Your task to perform on an android device: turn on javascript in the chrome app Image 0: 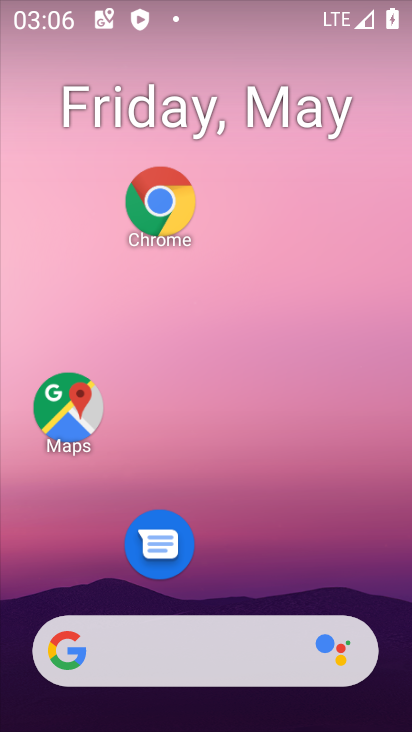
Step 0: drag from (283, 573) to (317, 196)
Your task to perform on an android device: turn on javascript in the chrome app Image 1: 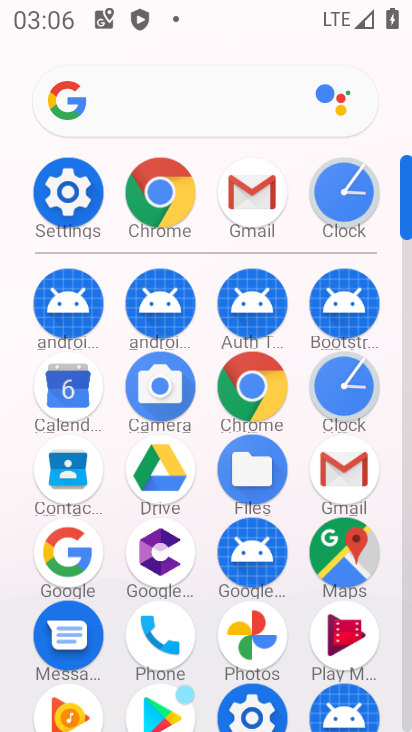
Step 1: click (273, 393)
Your task to perform on an android device: turn on javascript in the chrome app Image 2: 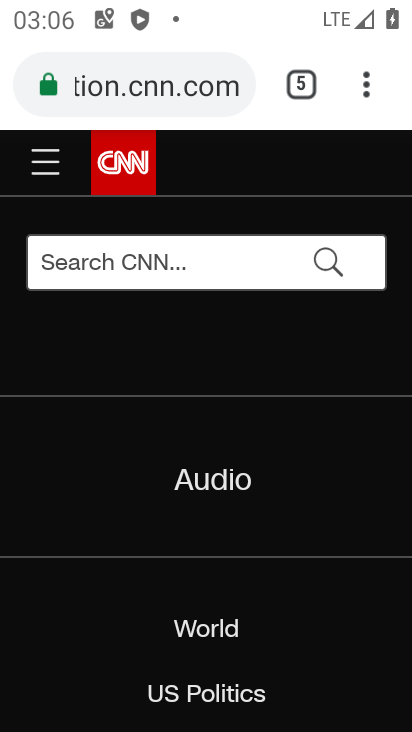
Step 2: click (361, 95)
Your task to perform on an android device: turn on javascript in the chrome app Image 3: 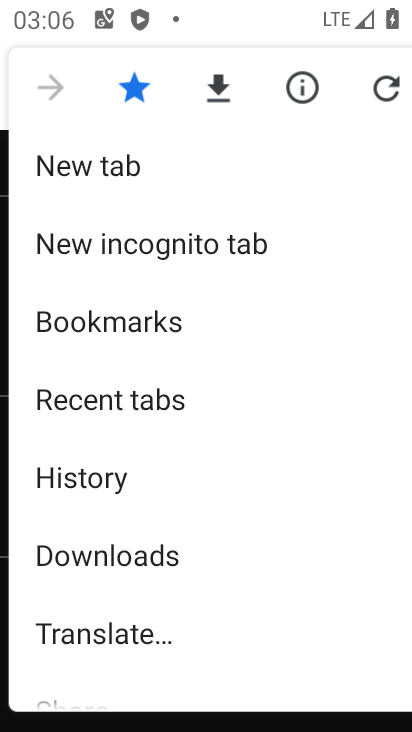
Step 3: drag from (238, 444) to (259, 231)
Your task to perform on an android device: turn on javascript in the chrome app Image 4: 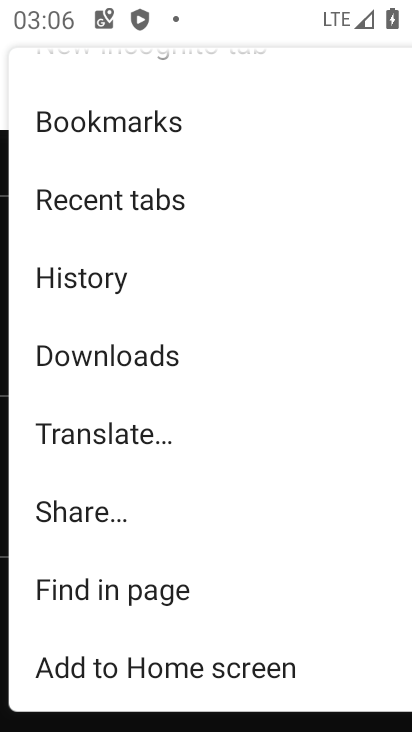
Step 4: drag from (173, 523) to (276, 233)
Your task to perform on an android device: turn on javascript in the chrome app Image 5: 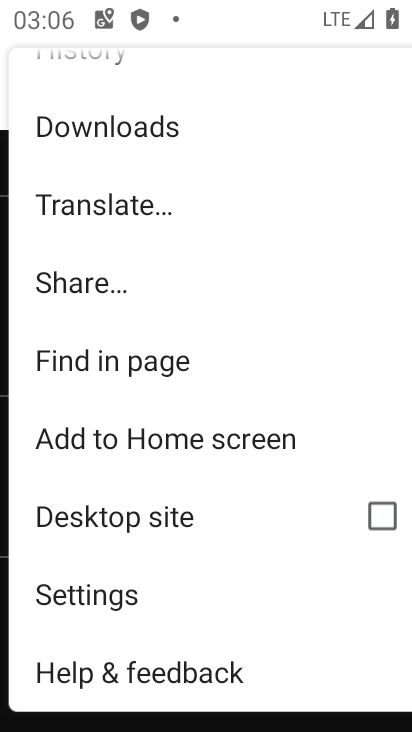
Step 5: click (153, 599)
Your task to perform on an android device: turn on javascript in the chrome app Image 6: 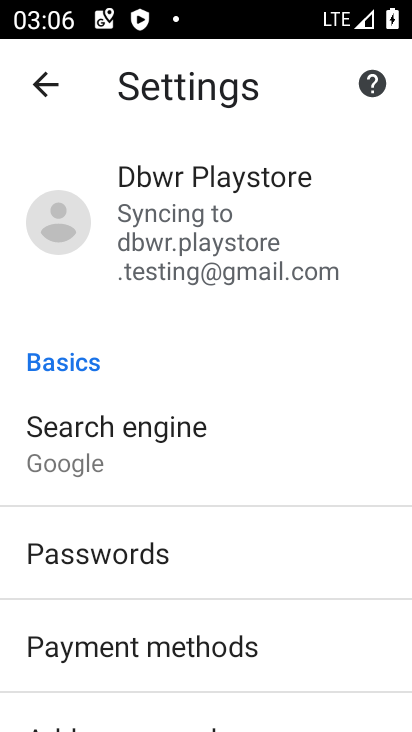
Step 6: drag from (226, 608) to (282, 264)
Your task to perform on an android device: turn on javascript in the chrome app Image 7: 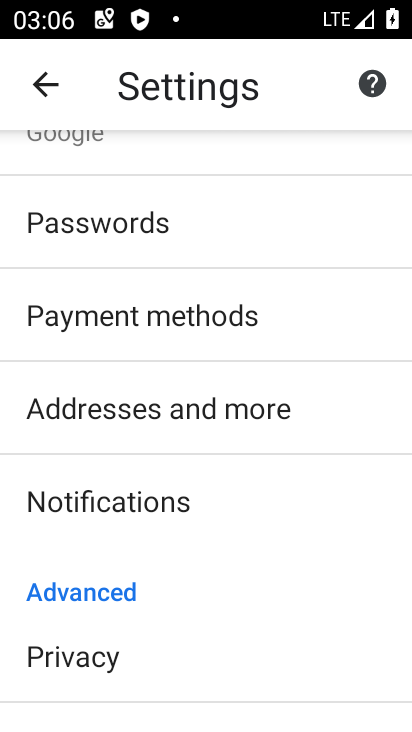
Step 7: drag from (235, 585) to (247, 319)
Your task to perform on an android device: turn on javascript in the chrome app Image 8: 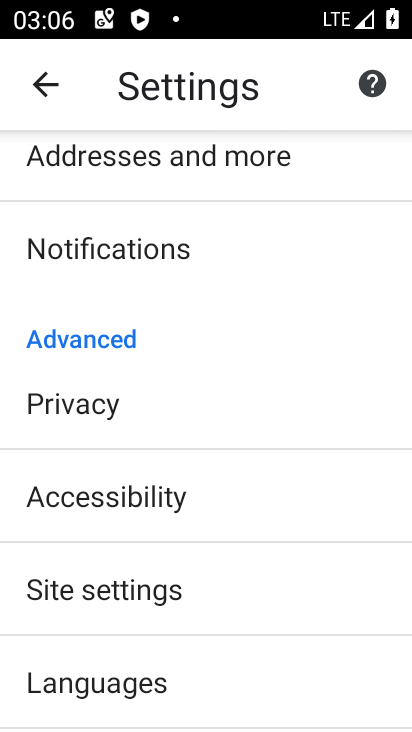
Step 8: drag from (237, 559) to (249, 387)
Your task to perform on an android device: turn on javascript in the chrome app Image 9: 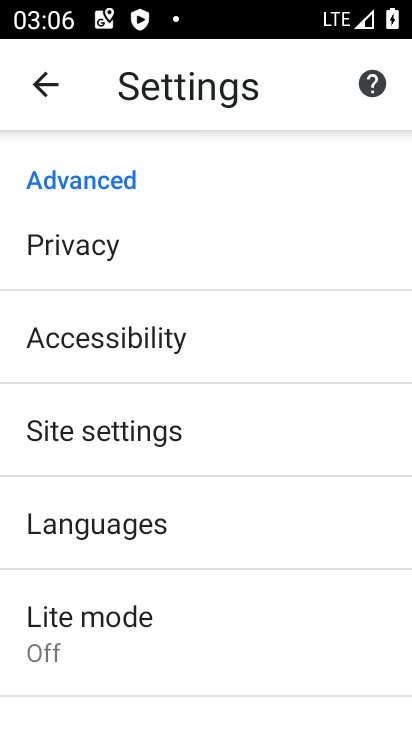
Step 9: drag from (207, 518) to (205, 458)
Your task to perform on an android device: turn on javascript in the chrome app Image 10: 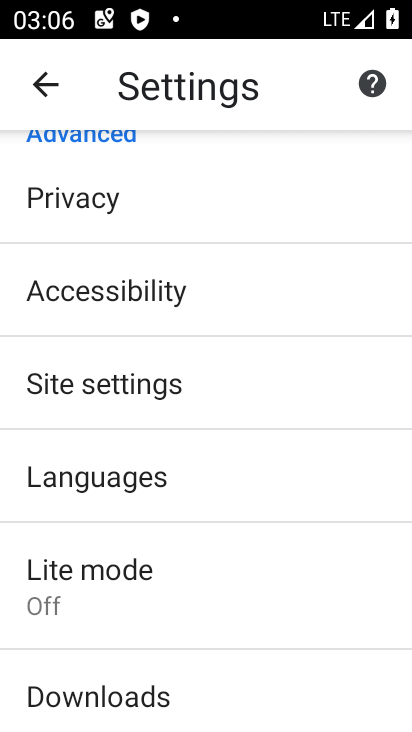
Step 10: click (196, 399)
Your task to perform on an android device: turn on javascript in the chrome app Image 11: 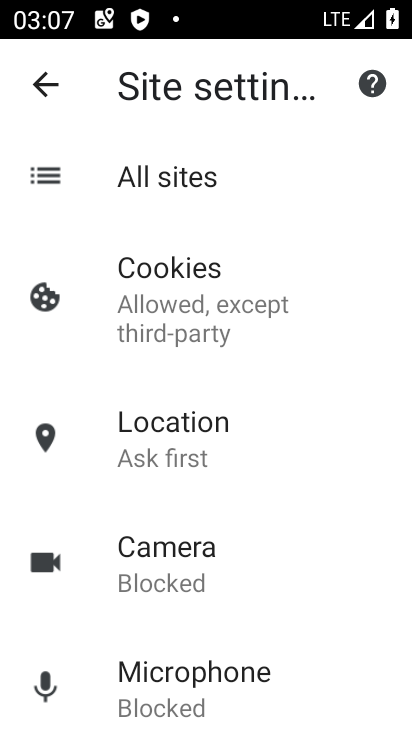
Step 11: drag from (271, 528) to (276, 280)
Your task to perform on an android device: turn on javascript in the chrome app Image 12: 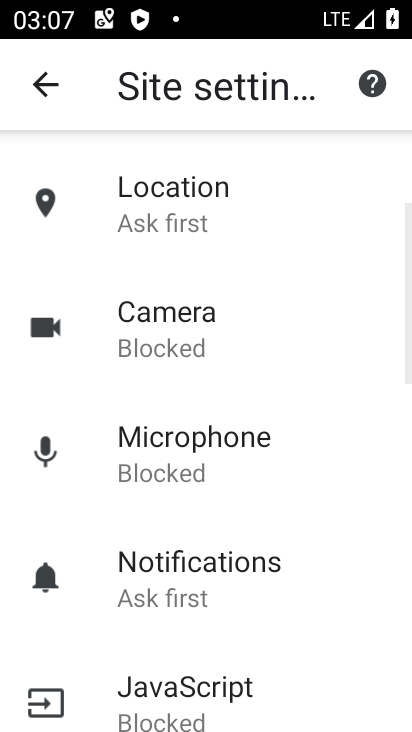
Step 12: drag from (256, 494) to (259, 277)
Your task to perform on an android device: turn on javascript in the chrome app Image 13: 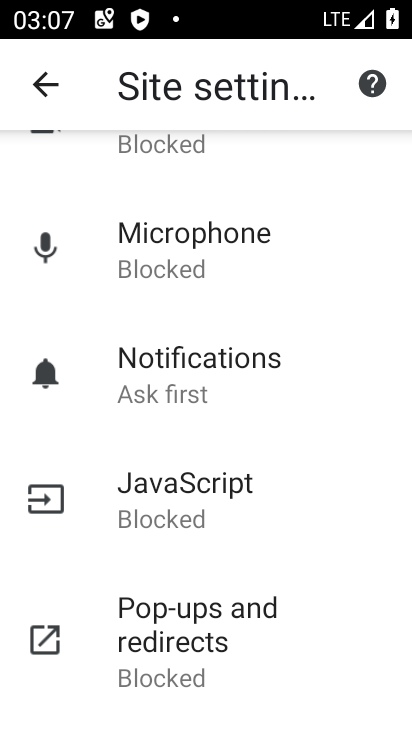
Step 13: click (220, 498)
Your task to perform on an android device: turn on javascript in the chrome app Image 14: 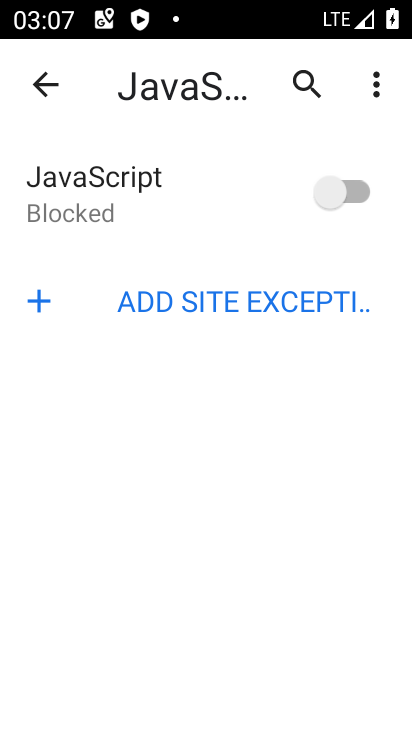
Step 14: click (333, 203)
Your task to perform on an android device: turn on javascript in the chrome app Image 15: 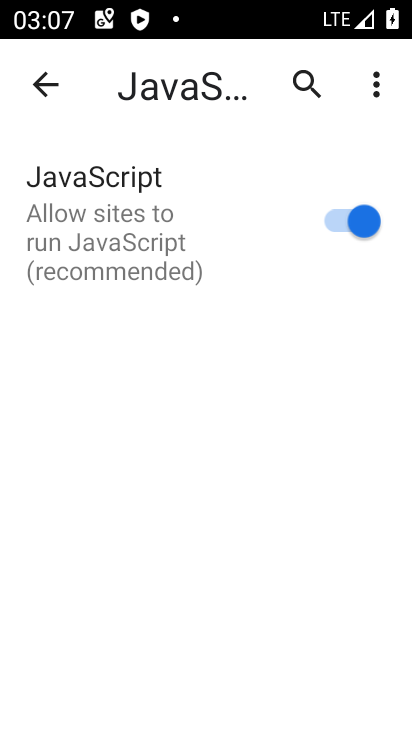
Step 15: task complete